Your task to perform on an android device: Show the shopping cart on ebay.com. Add "macbook" to the cart on ebay.com, then select checkout. Image 0: 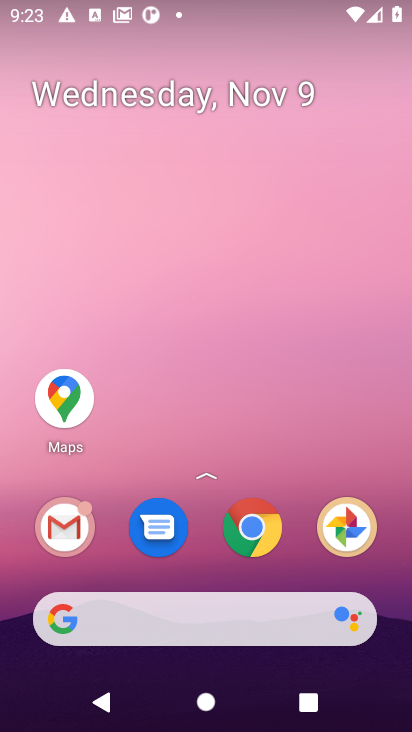
Step 0: click (252, 541)
Your task to perform on an android device: Show the shopping cart on ebay.com. Add "macbook" to the cart on ebay.com, then select checkout. Image 1: 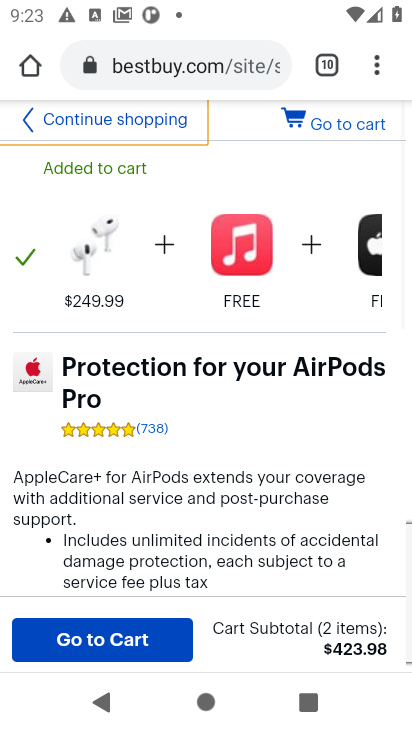
Step 1: click (176, 75)
Your task to perform on an android device: Show the shopping cart on ebay.com. Add "macbook" to the cart on ebay.com, then select checkout. Image 2: 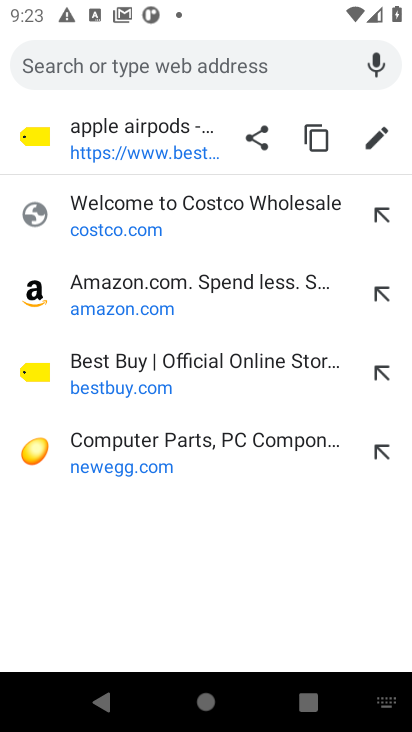
Step 2: type "ebay.com"
Your task to perform on an android device: Show the shopping cart on ebay.com. Add "macbook" to the cart on ebay.com, then select checkout. Image 3: 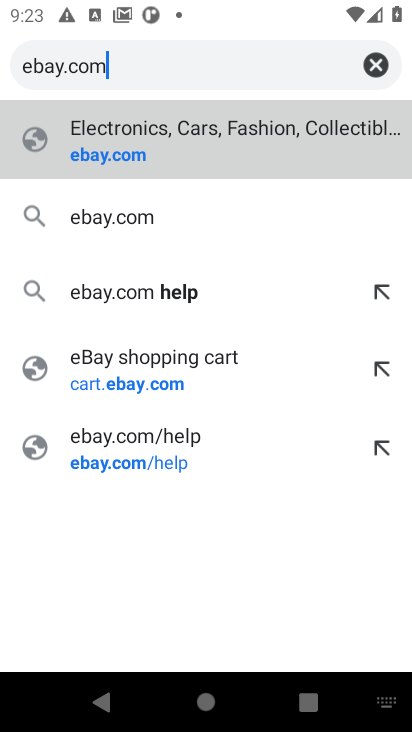
Step 3: click (134, 156)
Your task to perform on an android device: Show the shopping cart on ebay.com. Add "macbook" to the cart on ebay.com, then select checkout. Image 4: 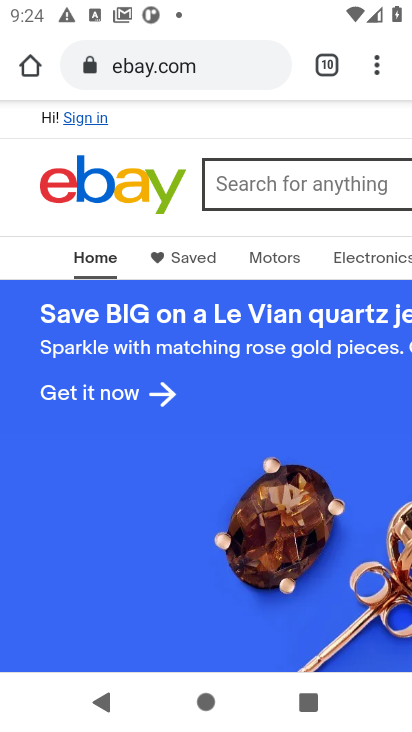
Step 4: drag from (259, 222) to (23, 175)
Your task to perform on an android device: Show the shopping cart on ebay.com. Add "macbook" to the cart on ebay.com, then select checkout. Image 5: 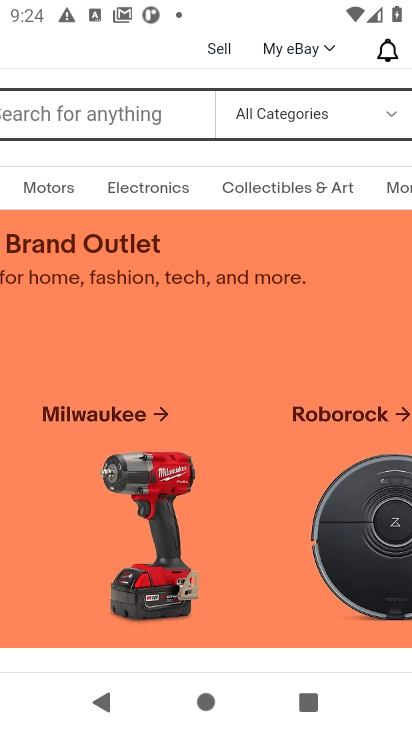
Step 5: drag from (372, 156) to (383, 254)
Your task to perform on an android device: Show the shopping cart on ebay.com. Add "macbook" to the cart on ebay.com, then select checkout. Image 6: 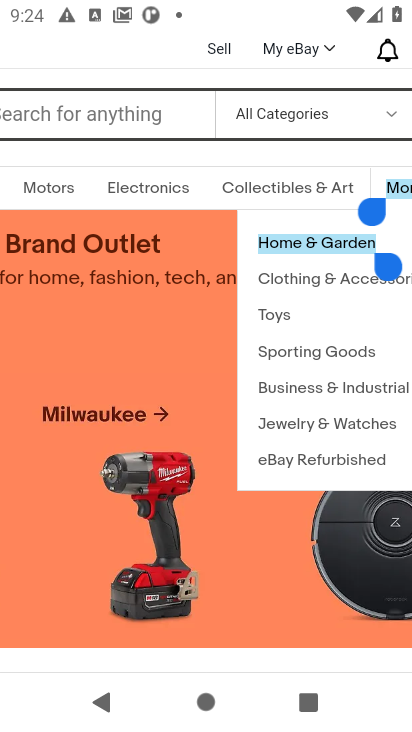
Step 6: drag from (340, 148) to (9, 139)
Your task to perform on an android device: Show the shopping cart on ebay.com. Add "macbook" to the cart on ebay.com, then select checkout. Image 7: 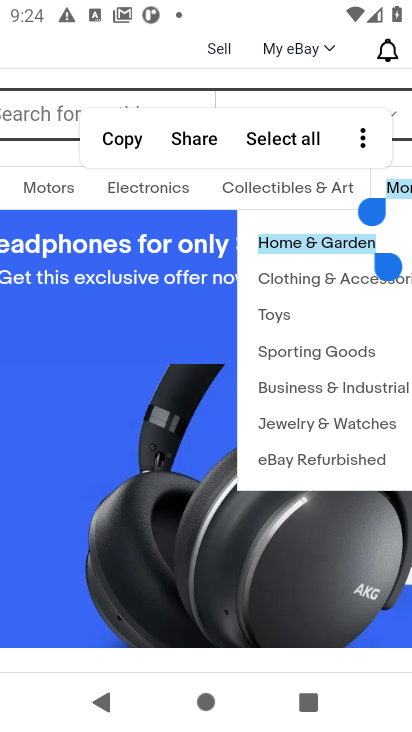
Step 7: click (341, 78)
Your task to perform on an android device: Show the shopping cart on ebay.com. Add "macbook" to the cart on ebay.com, then select checkout. Image 8: 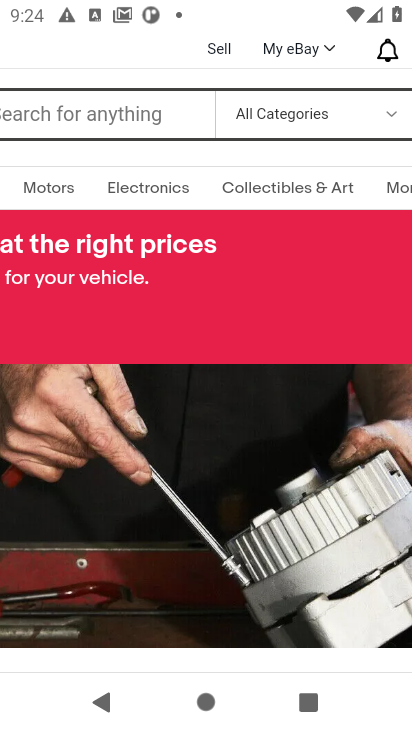
Step 8: drag from (341, 78) to (23, 49)
Your task to perform on an android device: Show the shopping cart on ebay.com. Add "macbook" to the cart on ebay.com, then select checkout. Image 9: 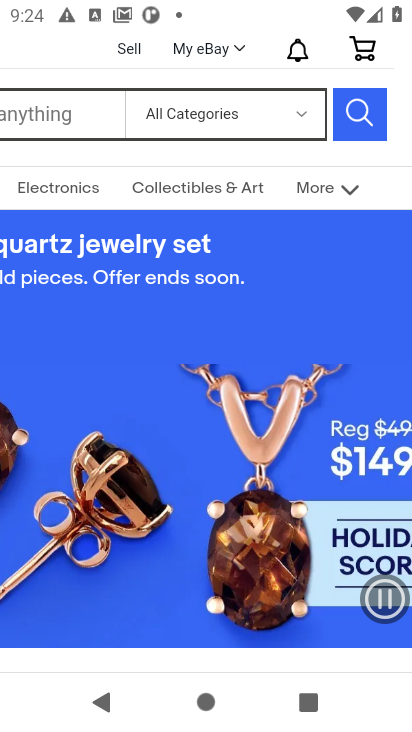
Step 9: click (346, 47)
Your task to perform on an android device: Show the shopping cart on ebay.com. Add "macbook" to the cart on ebay.com, then select checkout. Image 10: 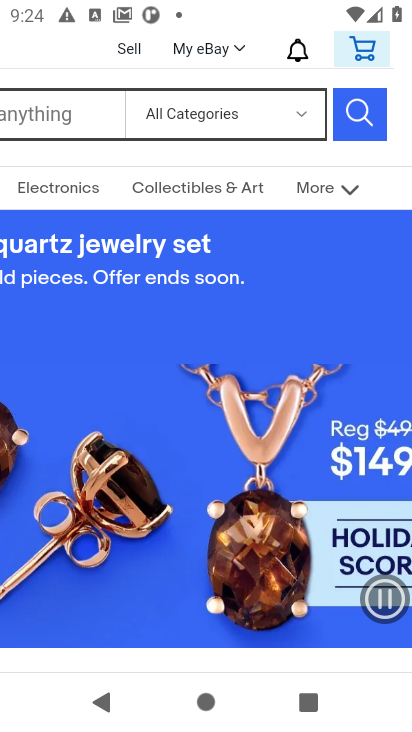
Step 10: click (372, 47)
Your task to perform on an android device: Show the shopping cart on ebay.com. Add "macbook" to the cart on ebay.com, then select checkout. Image 11: 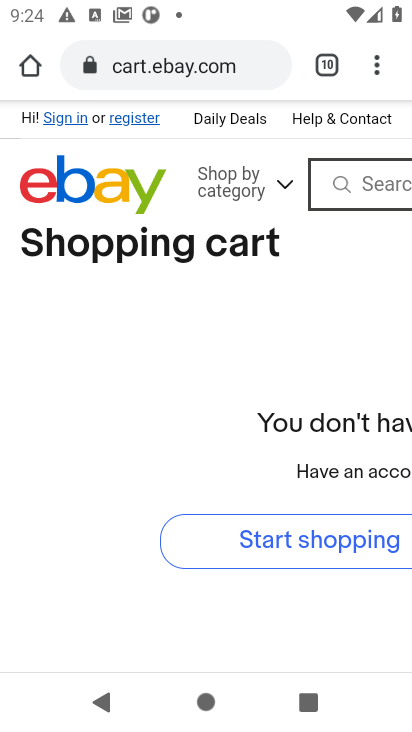
Step 11: drag from (152, 499) to (15, 610)
Your task to perform on an android device: Show the shopping cart on ebay.com. Add "macbook" to the cart on ebay.com, then select checkout. Image 12: 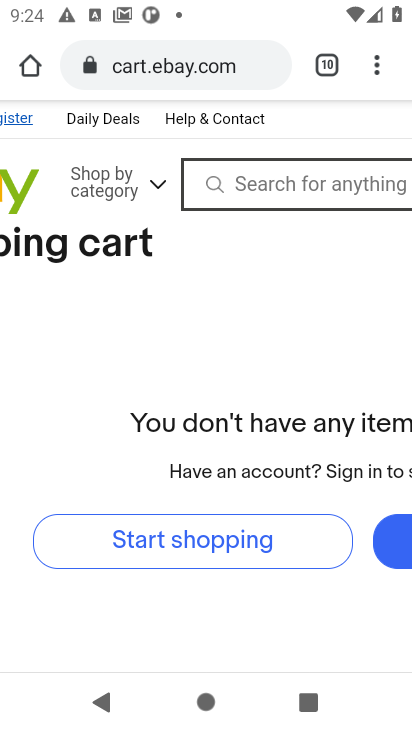
Step 12: click (269, 191)
Your task to perform on an android device: Show the shopping cart on ebay.com. Add "macbook" to the cart on ebay.com, then select checkout. Image 13: 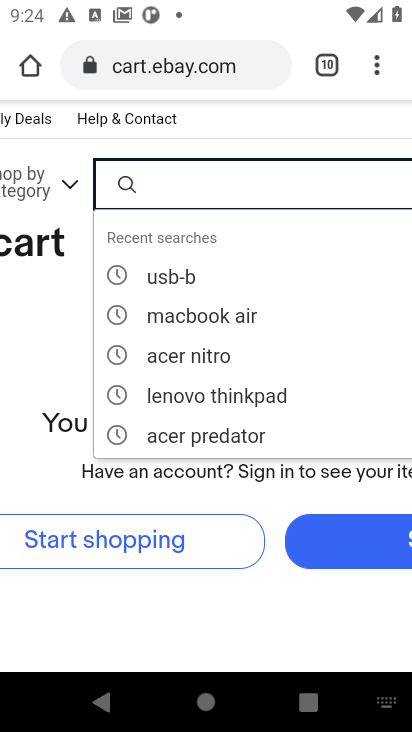
Step 13: type "macbook"
Your task to perform on an android device: Show the shopping cart on ebay.com. Add "macbook" to the cart on ebay.com, then select checkout. Image 14: 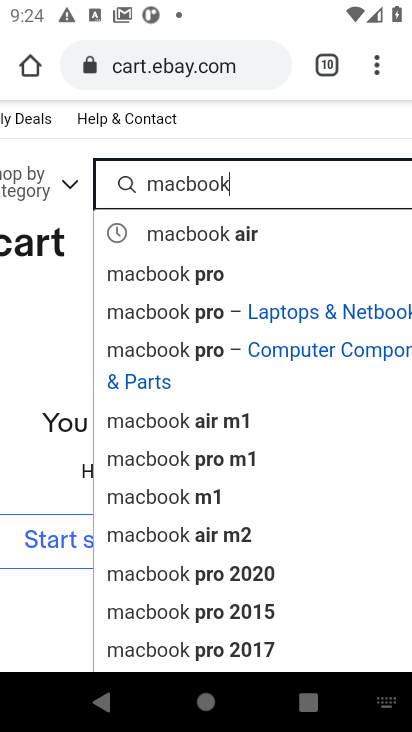
Step 14: drag from (222, 467) to (212, 267)
Your task to perform on an android device: Show the shopping cart on ebay.com. Add "macbook" to the cart on ebay.com, then select checkout. Image 15: 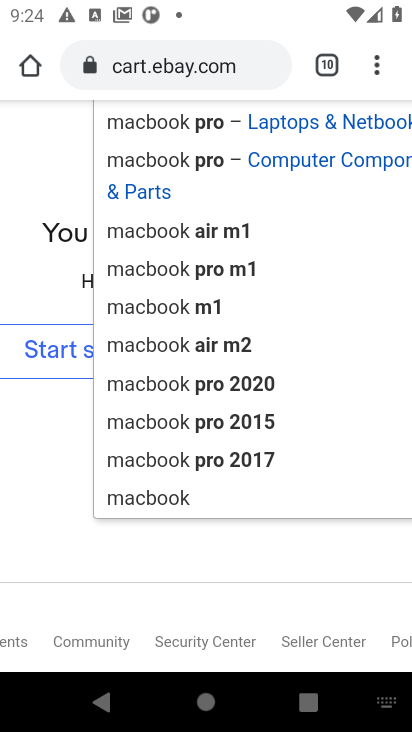
Step 15: click (151, 502)
Your task to perform on an android device: Show the shopping cart on ebay.com. Add "macbook" to the cart on ebay.com, then select checkout. Image 16: 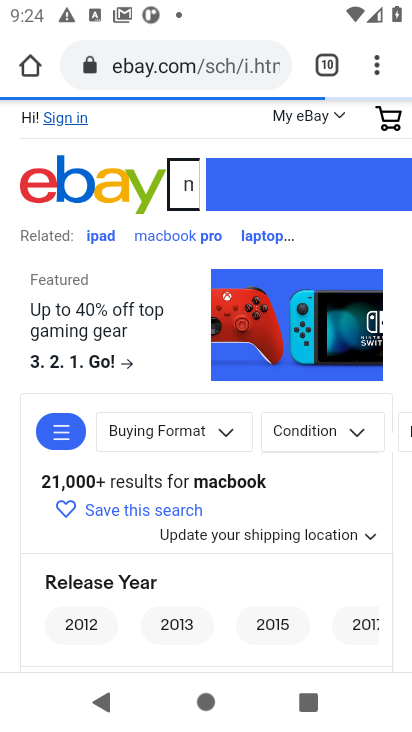
Step 16: drag from (186, 474) to (157, 208)
Your task to perform on an android device: Show the shopping cart on ebay.com. Add "macbook" to the cart on ebay.com, then select checkout. Image 17: 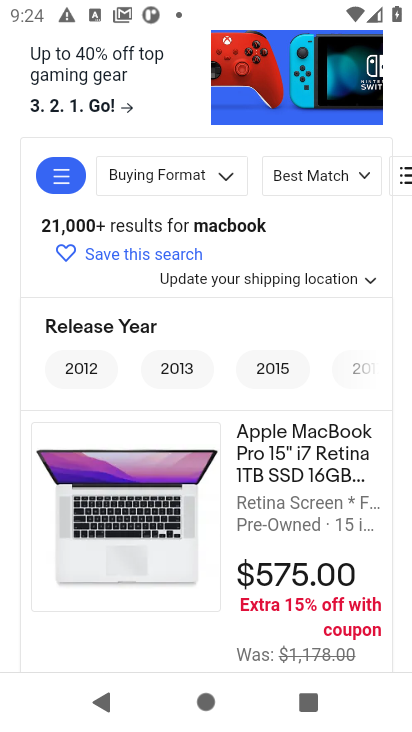
Step 17: drag from (172, 522) to (163, 343)
Your task to perform on an android device: Show the shopping cart on ebay.com. Add "macbook" to the cart on ebay.com, then select checkout. Image 18: 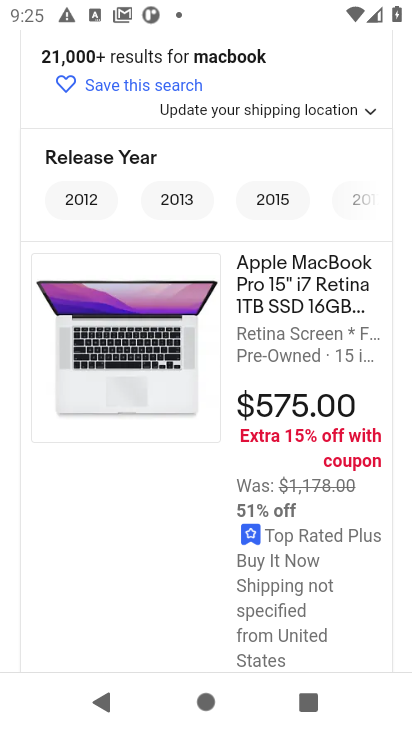
Step 18: click (152, 350)
Your task to perform on an android device: Show the shopping cart on ebay.com. Add "macbook" to the cart on ebay.com, then select checkout. Image 19: 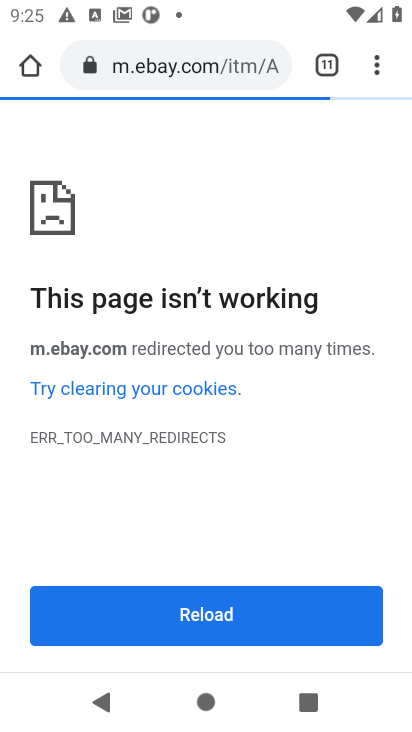
Step 19: task complete